Your task to perform on an android device: Go to Google Image 0: 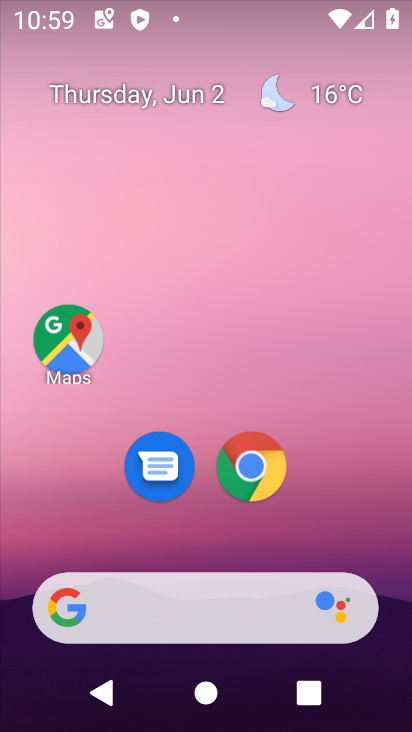
Step 0: drag from (239, 469) to (239, 133)
Your task to perform on an android device: Go to Google Image 1: 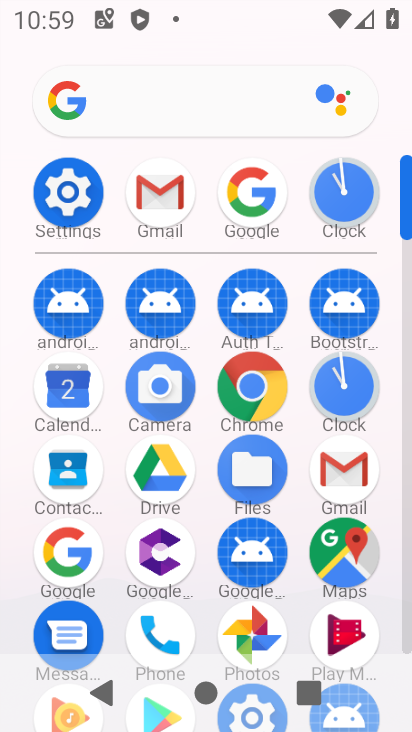
Step 1: click (235, 173)
Your task to perform on an android device: Go to Google Image 2: 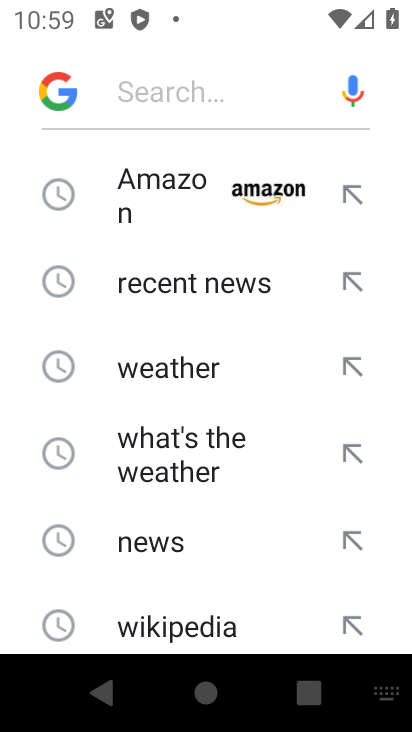
Step 2: click (52, 91)
Your task to perform on an android device: Go to Google Image 3: 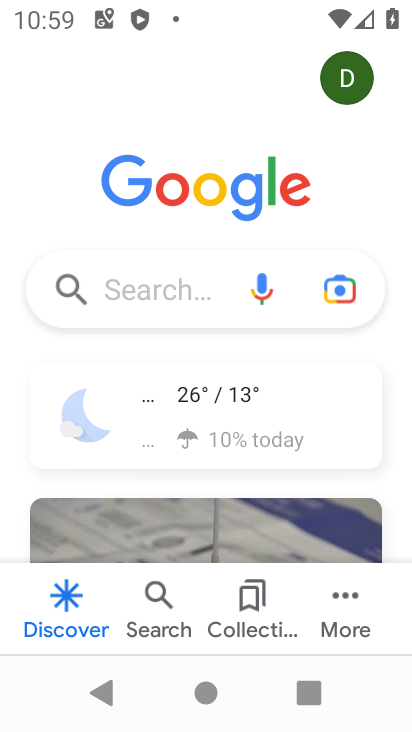
Step 3: task complete